Your task to perform on an android device: check the backup settings in the google photos Image 0: 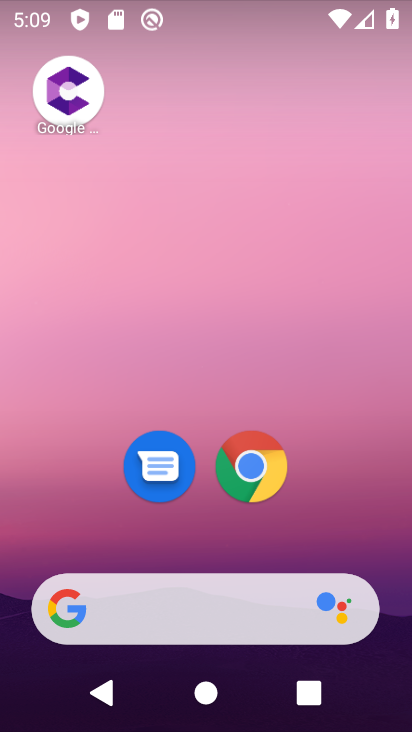
Step 0: drag from (323, 511) to (352, 163)
Your task to perform on an android device: check the backup settings in the google photos Image 1: 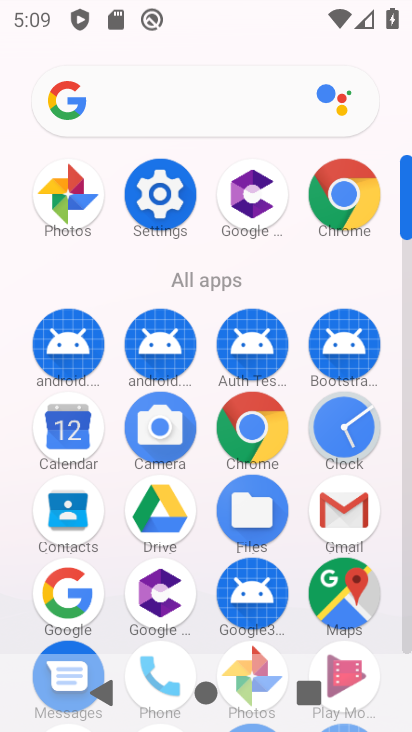
Step 1: click (255, 670)
Your task to perform on an android device: check the backup settings in the google photos Image 2: 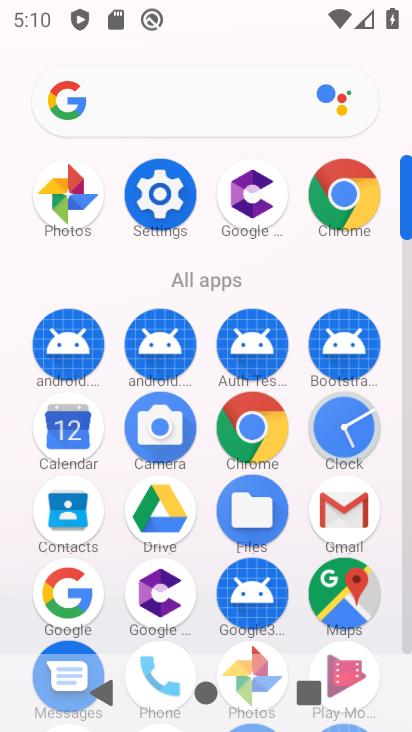
Step 2: click (245, 654)
Your task to perform on an android device: check the backup settings in the google photos Image 3: 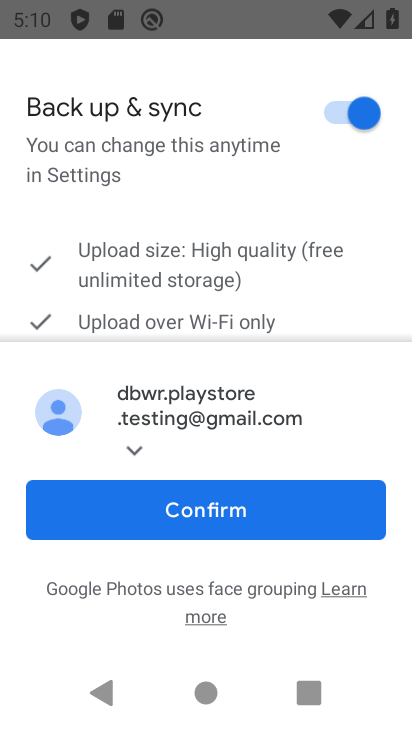
Step 3: click (241, 510)
Your task to perform on an android device: check the backup settings in the google photos Image 4: 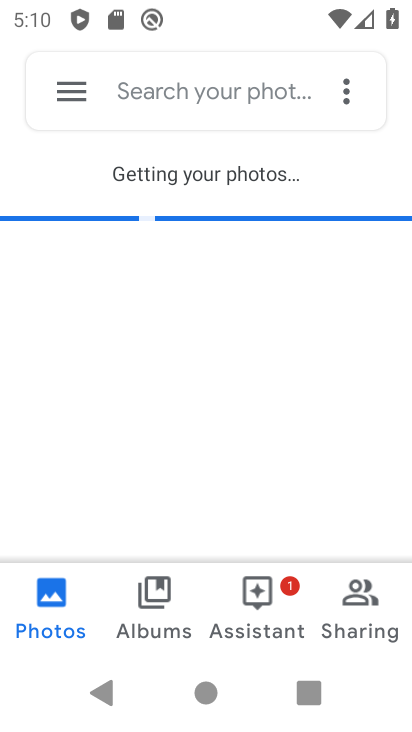
Step 4: click (74, 93)
Your task to perform on an android device: check the backup settings in the google photos Image 5: 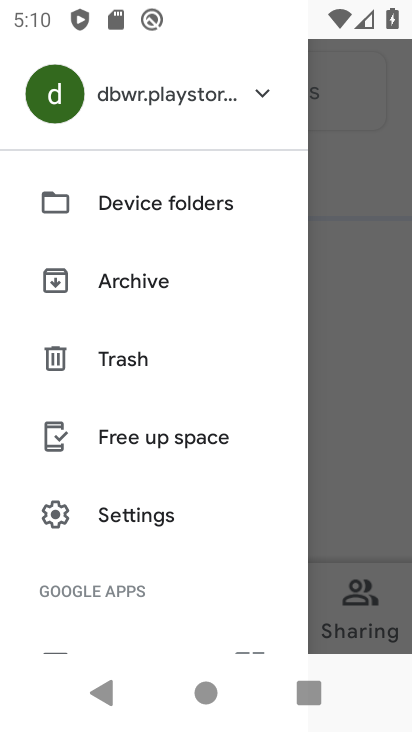
Step 5: click (165, 517)
Your task to perform on an android device: check the backup settings in the google photos Image 6: 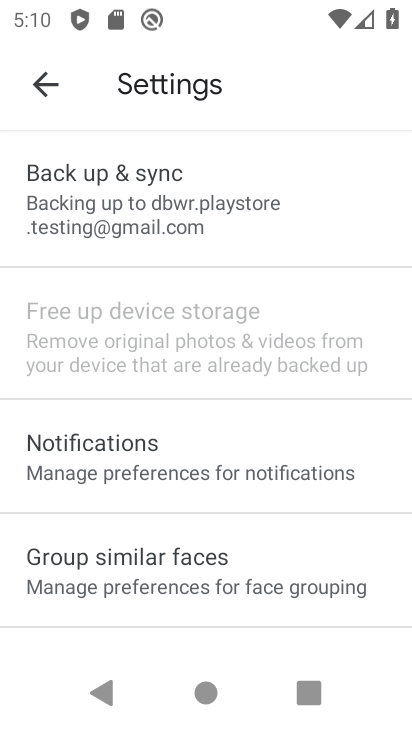
Step 6: click (152, 198)
Your task to perform on an android device: check the backup settings in the google photos Image 7: 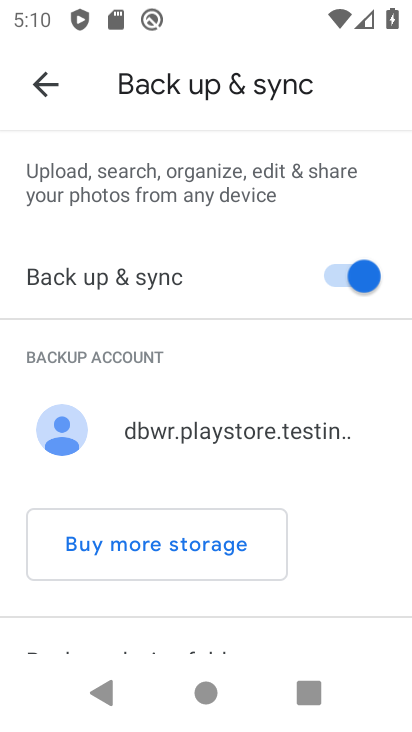
Step 7: task complete